Your task to perform on an android device: Open maps Image 0: 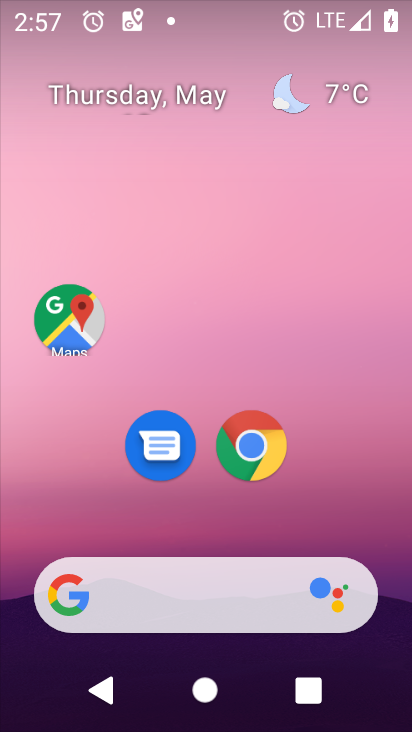
Step 0: click (68, 326)
Your task to perform on an android device: Open maps Image 1: 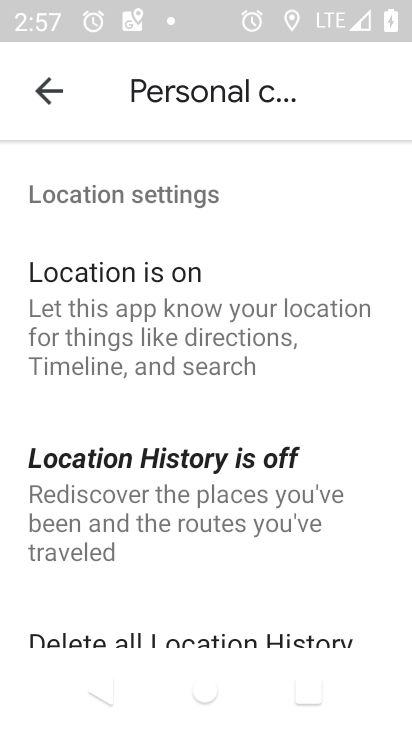
Step 1: task complete